Your task to perform on an android device: open a bookmark in the chrome app Image 0: 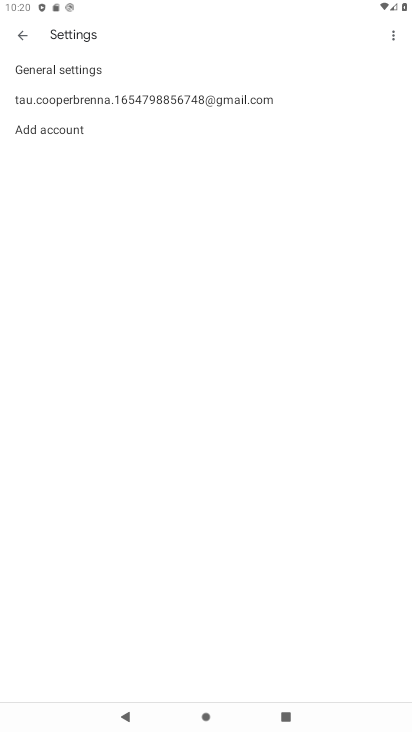
Step 0: press home button
Your task to perform on an android device: open a bookmark in the chrome app Image 1: 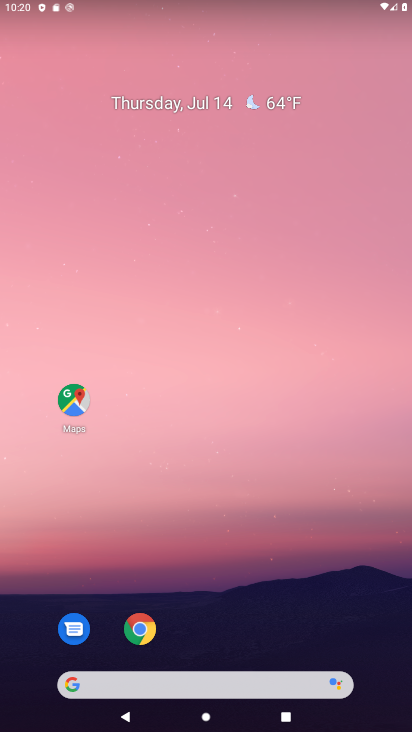
Step 1: click (141, 624)
Your task to perform on an android device: open a bookmark in the chrome app Image 2: 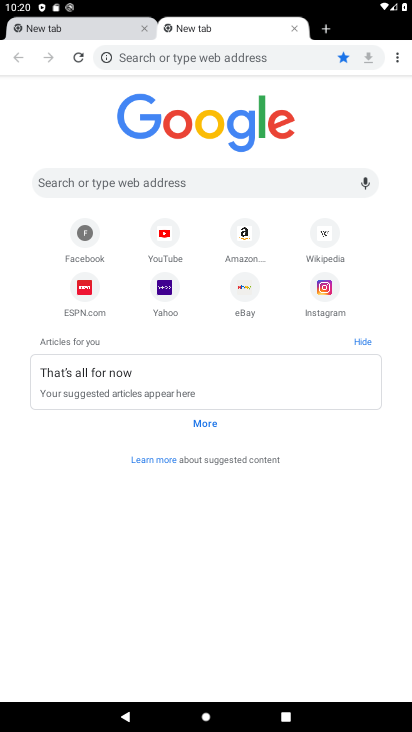
Step 2: click (396, 60)
Your task to perform on an android device: open a bookmark in the chrome app Image 3: 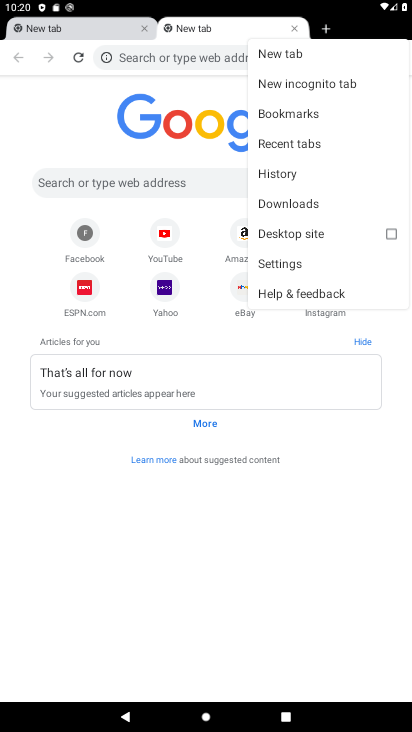
Step 3: click (289, 113)
Your task to perform on an android device: open a bookmark in the chrome app Image 4: 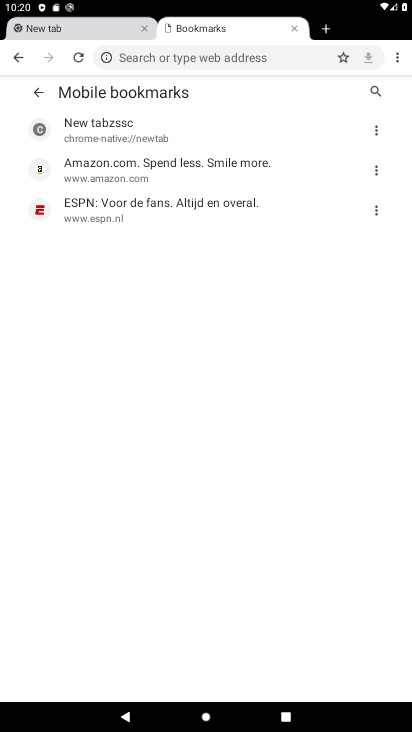
Step 4: task complete